Your task to perform on an android device: Go to battery settings Image 0: 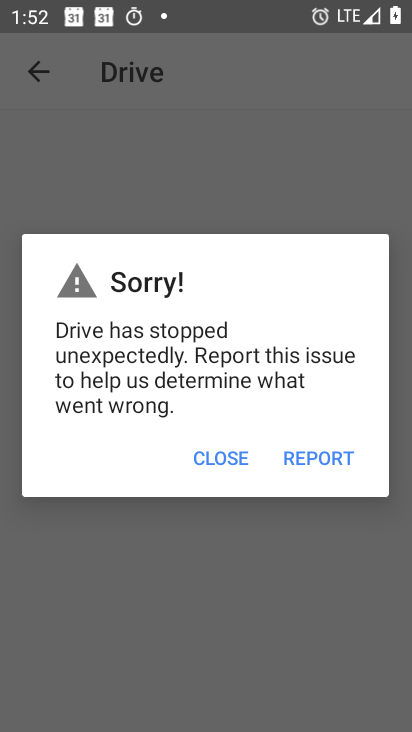
Step 0: press home button
Your task to perform on an android device: Go to battery settings Image 1: 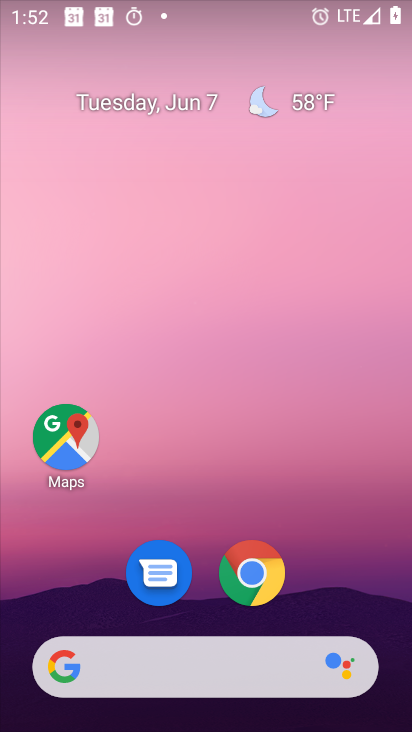
Step 1: drag from (326, 585) to (301, 150)
Your task to perform on an android device: Go to battery settings Image 2: 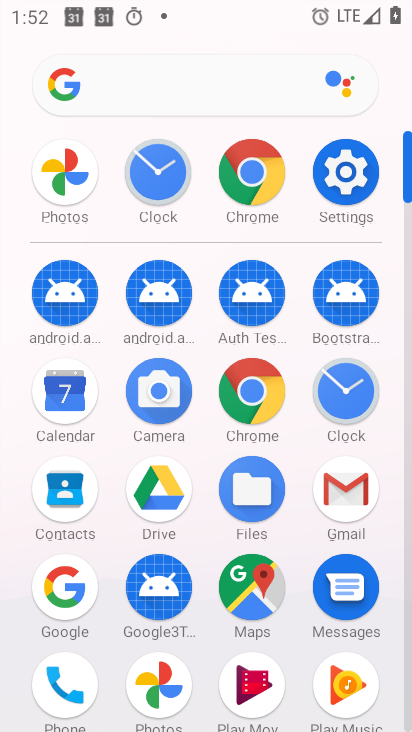
Step 2: click (351, 178)
Your task to perform on an android device: Go to battery settings Image 3: 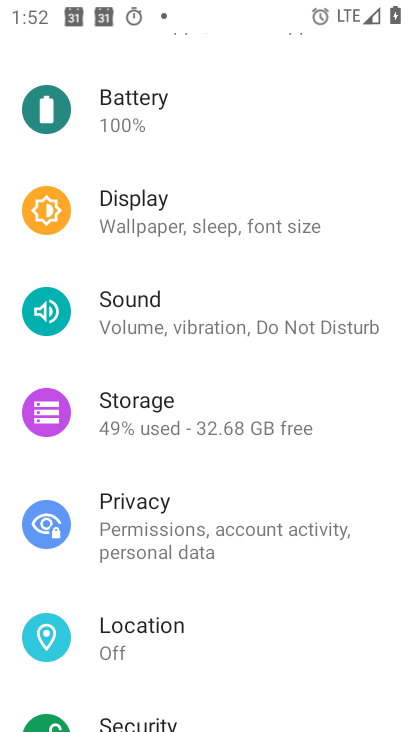
Step 3: drag from (190, 634) to (247, 328)
Your task to perform on an android device: Go to battery settings Image 4: 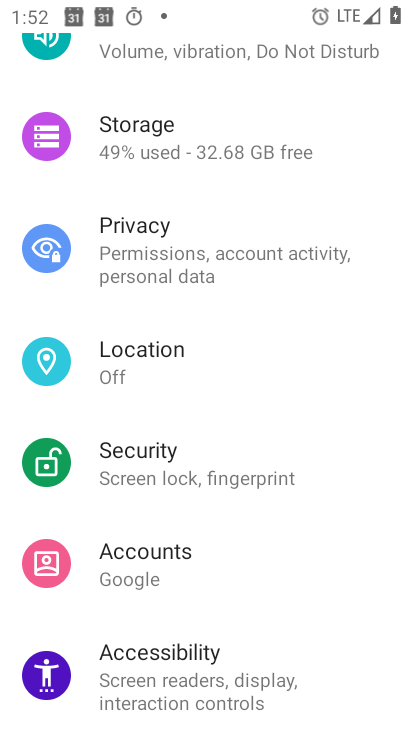
Step 4: drag from (247, 328) to (183, 672)
Your task to perform on an android device: Go to battery settings Image 5: 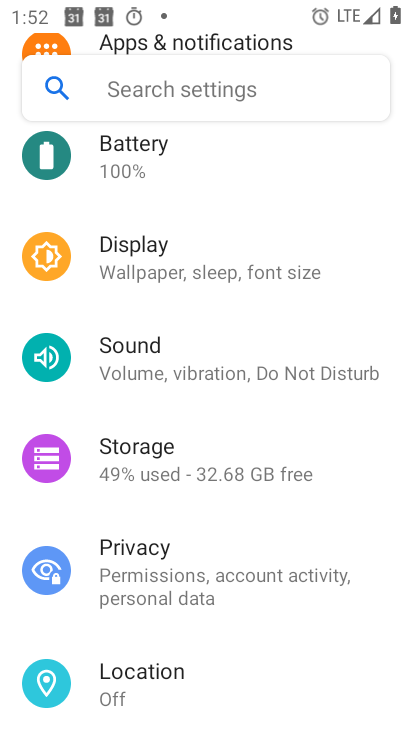
Step 5: drag from (208, 201) to (164, 369)
Your task to perform on an android device: Go to battery settings Image 6: 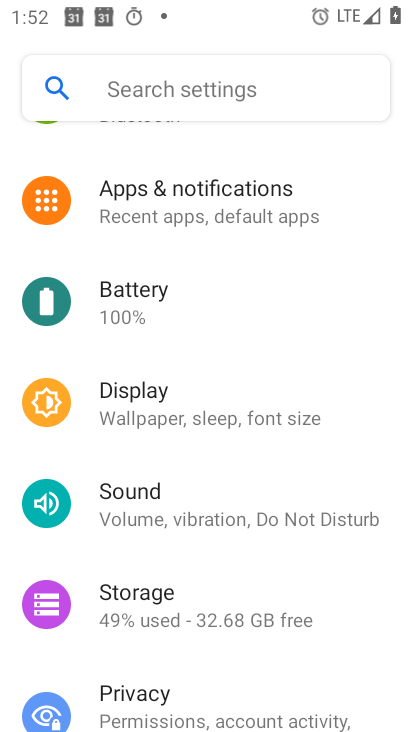
Step 6: click (138, 301)
Your task to perform on an android device: Go to battery settings Image 7: 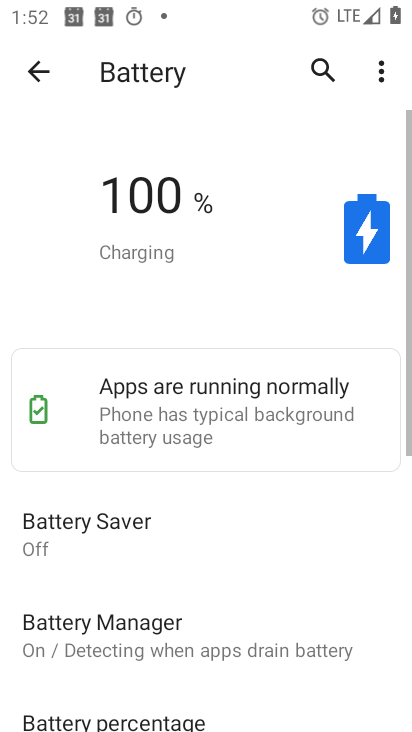
Step 7: task complete